Your task to perform on an android device: empty trash in google photos Image 0: 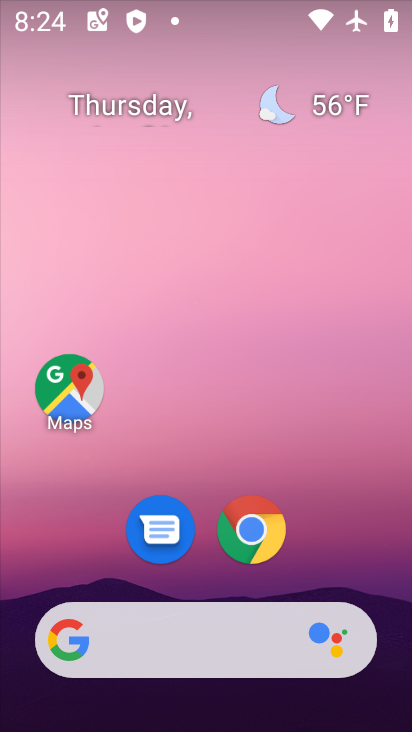
Step 0: drag from (205, 609) to (282, 199)
Your task to perform on an android device: empty trash in google photos Image 1: 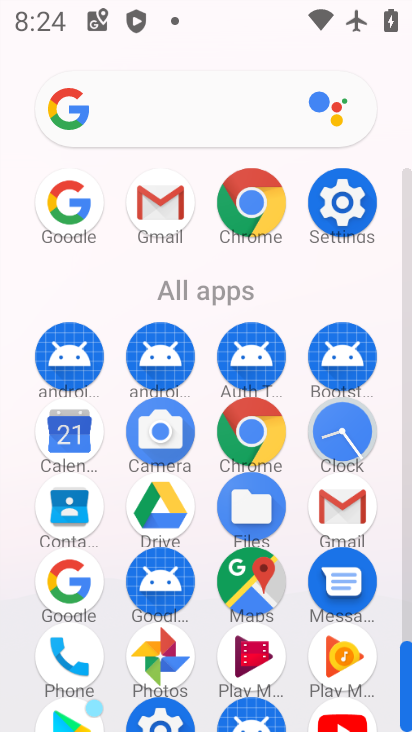
Step 1: click (166, 654)
Your task to perform on an android device: empty trash in google photos Image 2: 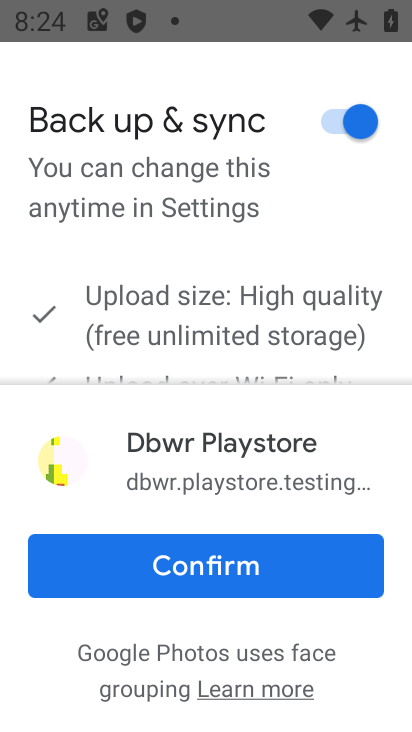
Step 2: click (213, 570)
Your task to perform on an android device: empty trash in google photos Image 3: 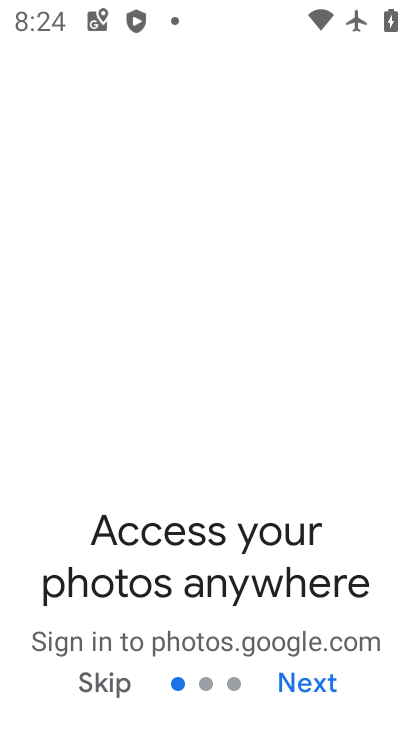
Step 3: click (302, 684)
Your task to perform on an android device: empty trash in google photos Image 4: 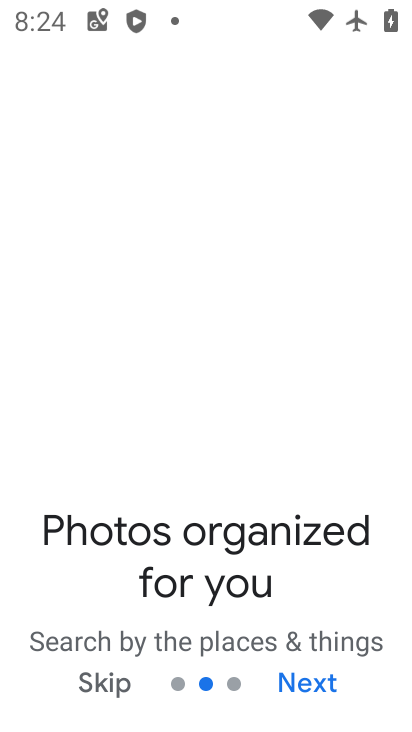
Step 4: click (302, 684)
Your task to perform on an android device: empty trash in google photos Image 5: 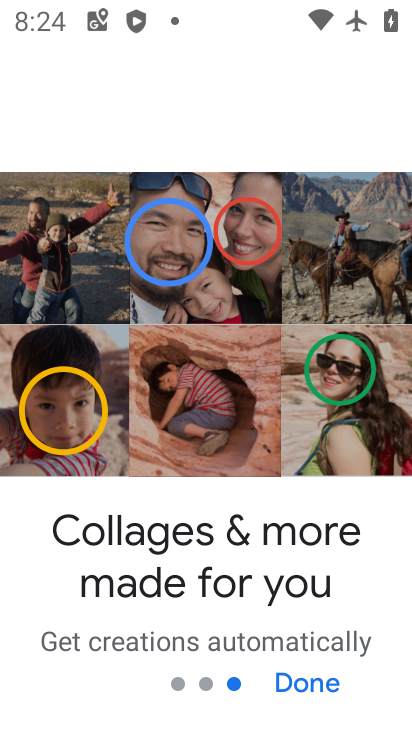
Step 5: click (302, 684)
Your task to perform on an android device: empty trash in google photos Image 6: 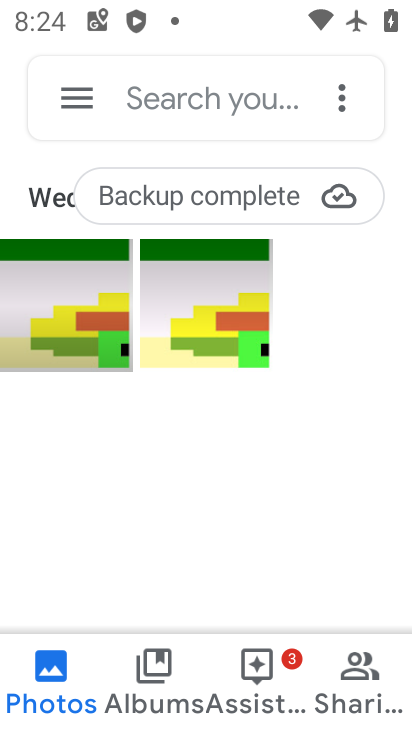
Step 6: click (79, 94)
Your task to perform on an android device: empty trash in google photos Image 7: 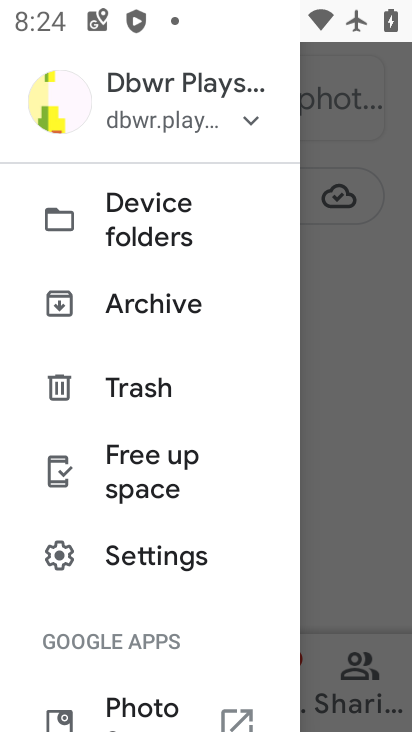
Step 7: click (143, 382)
Your task to perform on an android device: empty trash in google photos Image 8: 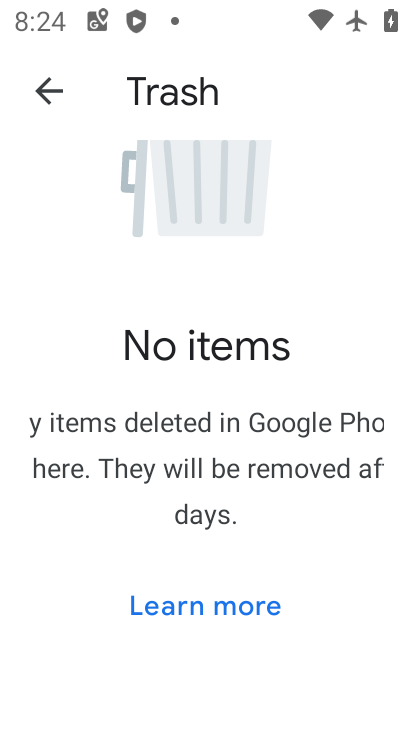
Step 8: task complete